Your task to perform on an android device: turn notification dots on Image 0: 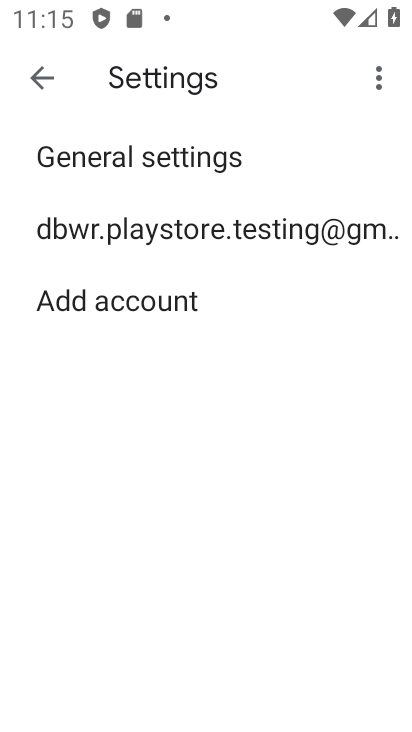
Step 0: press home button
Your task to perform on an android device: turn notification dots on Image 1: 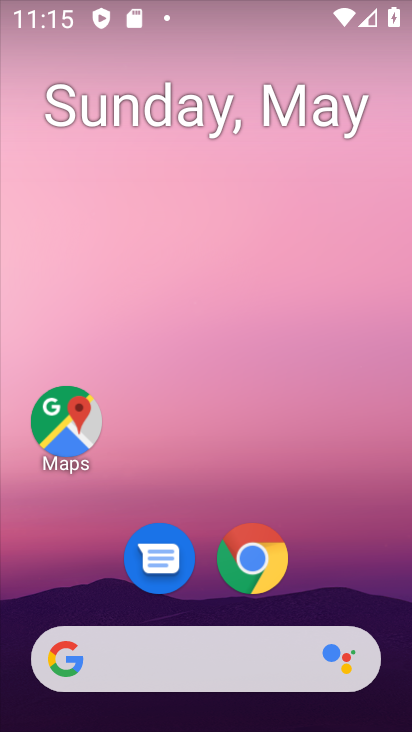
Step 1: drag from (370, 402) to (12, 192)
Your task to perform on an android device: turn notification dots on Image 2: 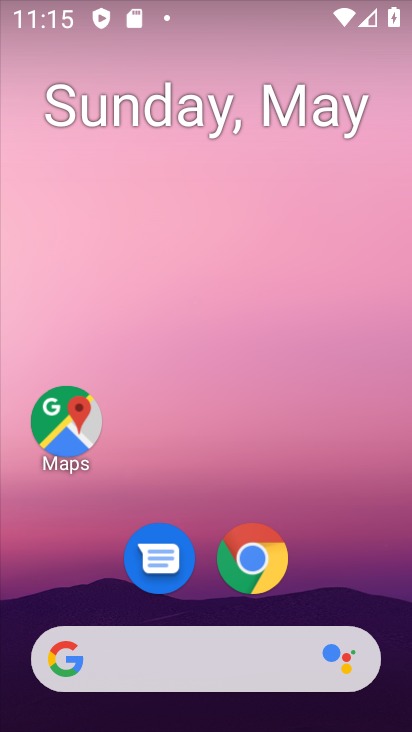
Step 2: drag from (361, 567) to (360, 79)
Your task to perform on an android device: turn notification dots on Image 3: 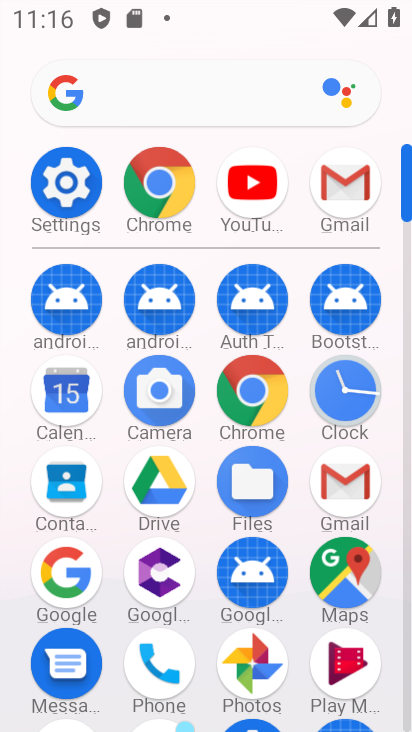
Step 3: click (61, 188)
Your task to perform on an android device: turn notification dots on Image 4: 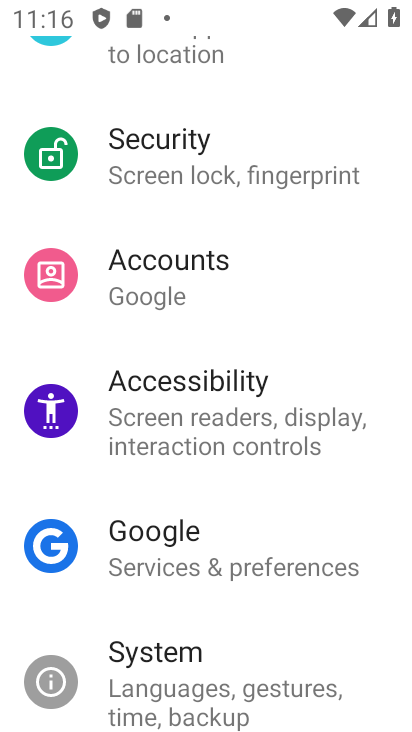
Step 4: click (72, 188)
Your task to perform on an android device: turn notification dots on Image 5: 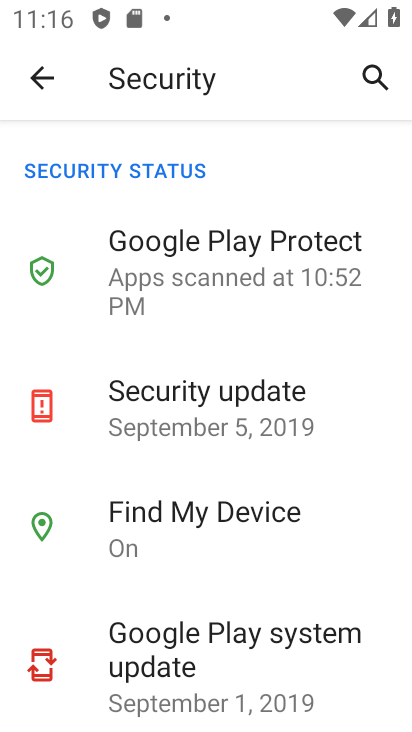
Step 5: click (45, 77)
Your task to perform on an android device: turn notification dots on Image 6: 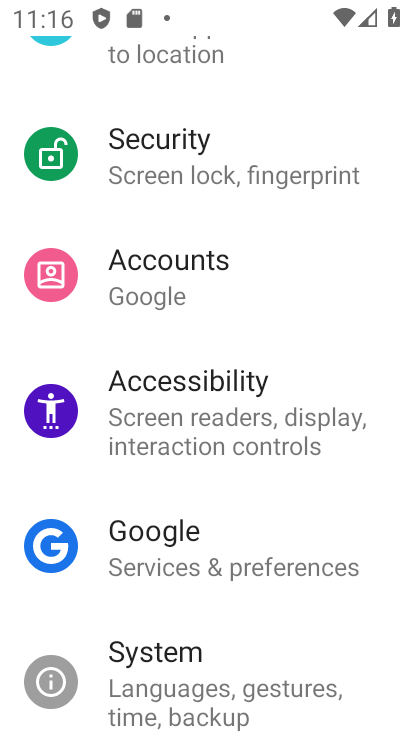
Step 6: drag from (345, 264) to (358, 512)
Your task to perform on an android device: turn notification dots on Image 7: 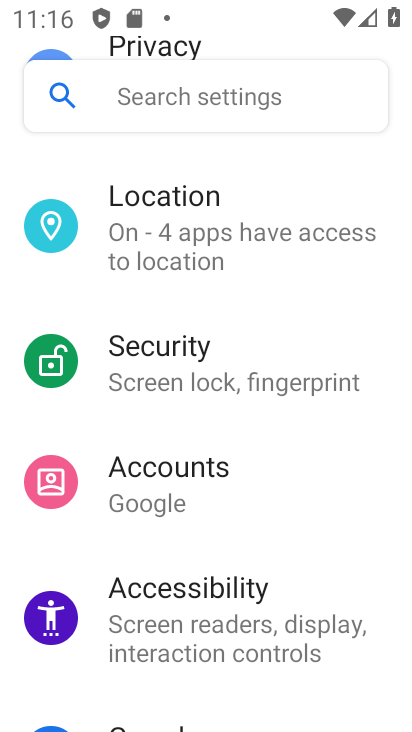
Step 7: drag from (380, 289) to (377, 533)
Your task to perform on an android device: turn notification dots on Image 8: 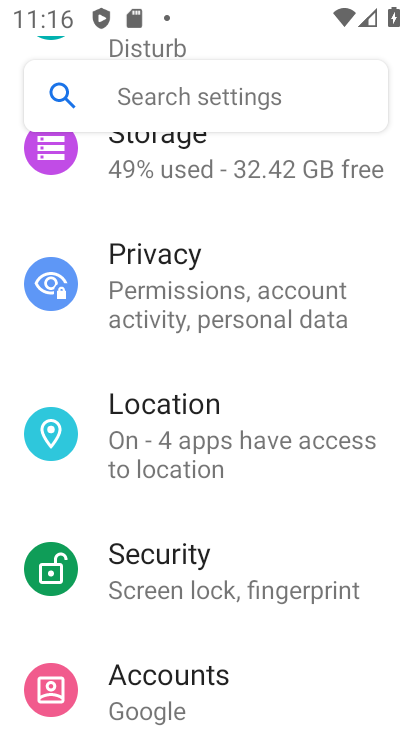
Step 8: drag from (369, 243) to (363, 502)
Your task to perform on an android device: turn notification dots on Image 9: 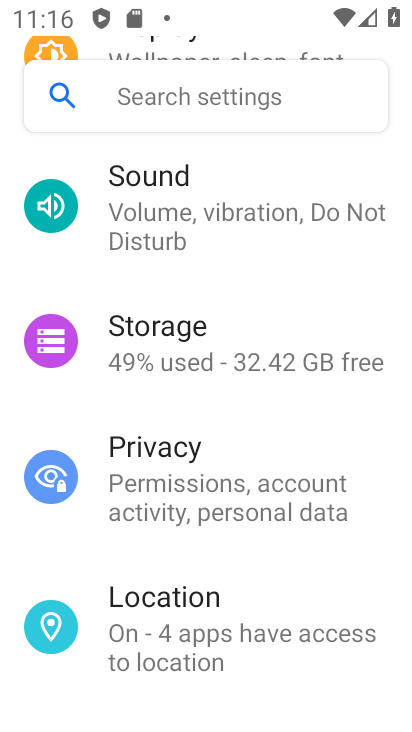
Step 9: drag from (365, 262) to (357, 466)
Your task to perform on an android device: turn notification dots on Image 10: 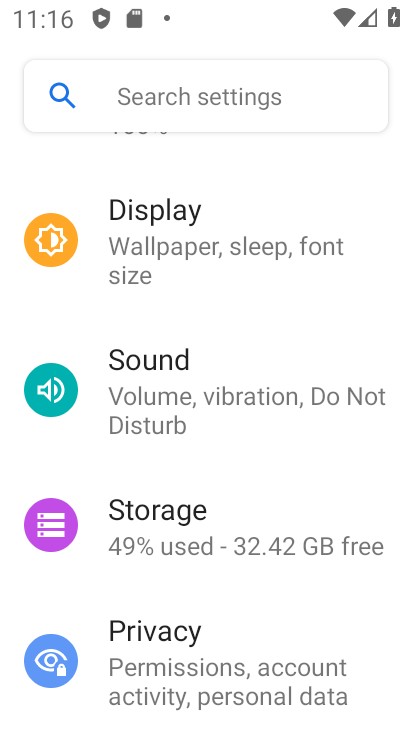
Step 10: drag from (385, 266) to (383, 456)
Your task to perform on an android device: turn notification dots on Image 11: 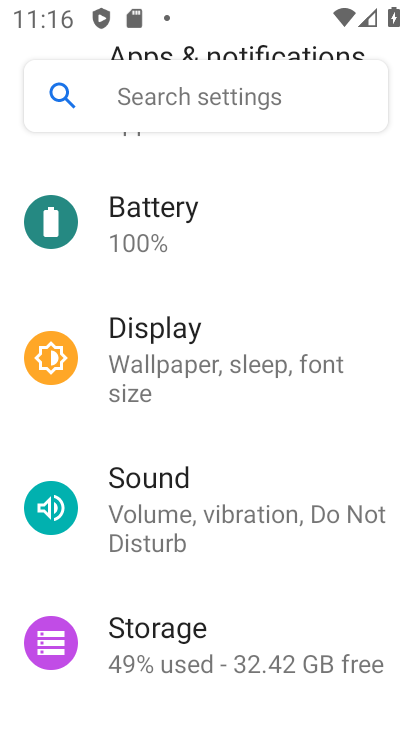
Step 11: drag from (354, 189) to (340, 453)
Your task to perform on an android device: turn notification dots on Image 12: 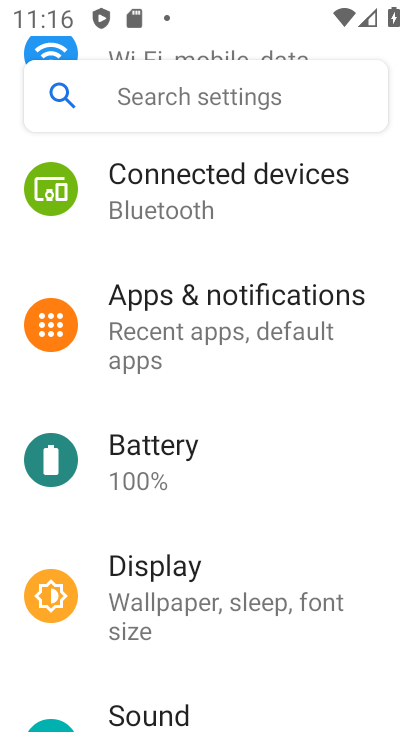
Step 12: click (230, 328)
Your task to perform on an android device: turn notification dots on Image 13: 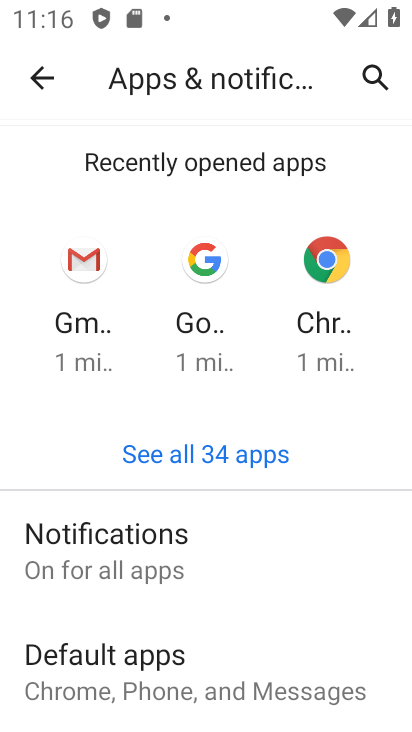
Step 13: click (159, 552)
Your task to perform on an android device: turn notification dots on Image 14: 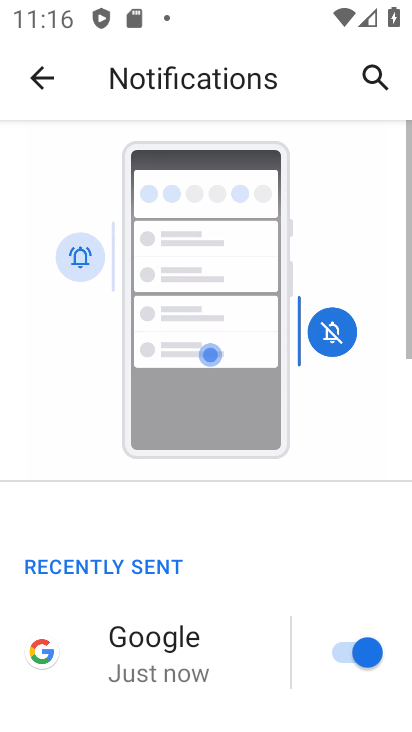
Step 14: drag from (271, 558) to (281, 328)
Your task to perform on an android device: turn notification dots on Image 15: 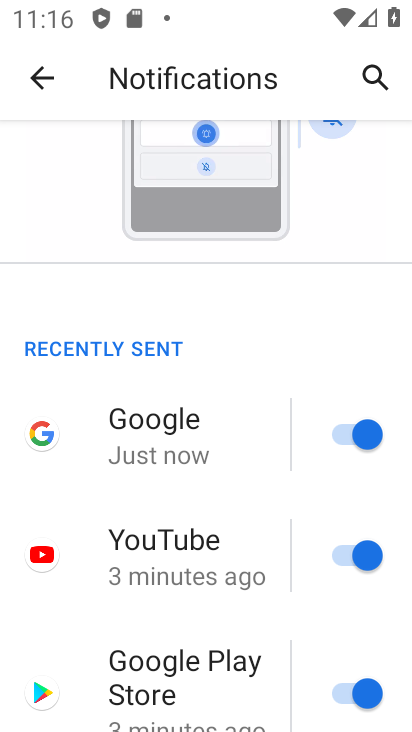
Step 15: drag from (258, 629) to (256, 322)
Your task to perform on an android device: turn notification dots on Image 16: 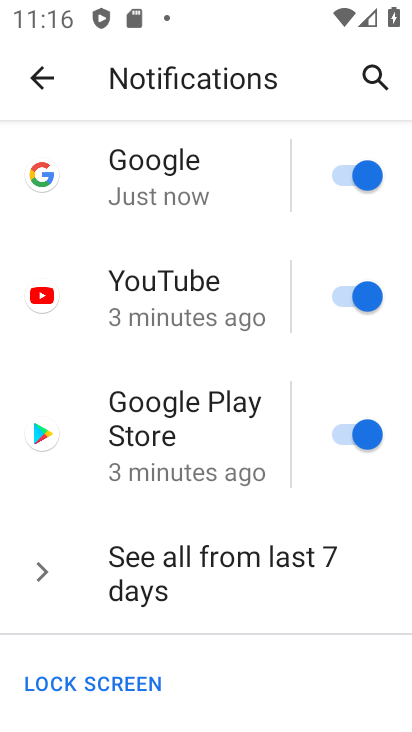
Step 16: drag from (232, 651) to (230, 385)
Your task to perform on an android device: turn notification dots on Image 17: 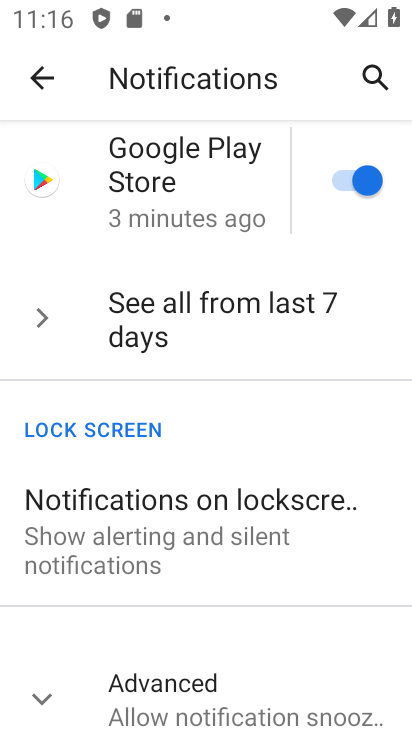
Step 17: click (223, 709)
Your task to perform on an android device: turn notification dots on Image 18: 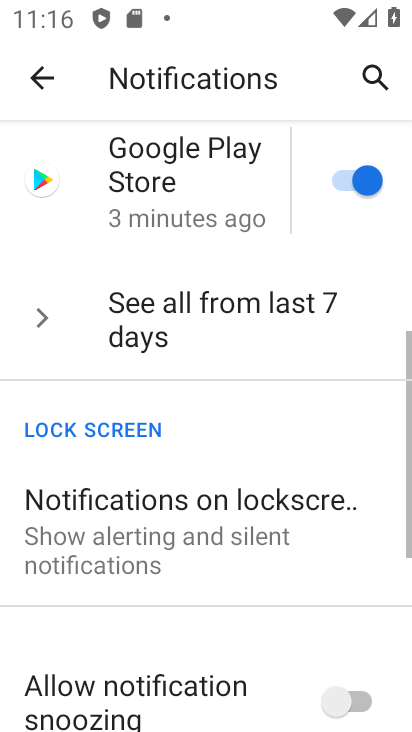
Step 18: task complete